Your task to perform on an android device: open the mobile data screen to see how much data has been used Image 0: 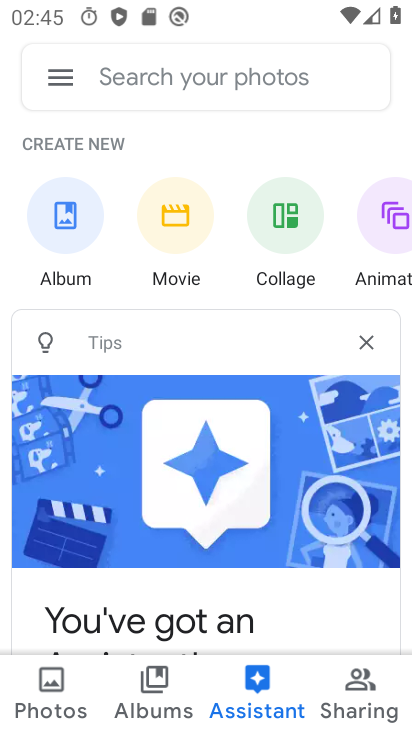
Step 0: press home button
Your task to perform on an android device: open the mobile data screen to see how much data has been used Image 1: 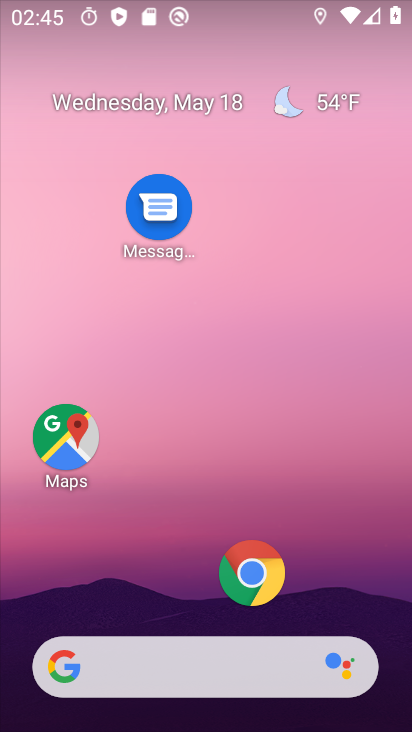
Step 1: drag from (170, 606) to (215, 242)
Your task to perform on an android device: open the mobile data screen to see how much data has been used Image 2: 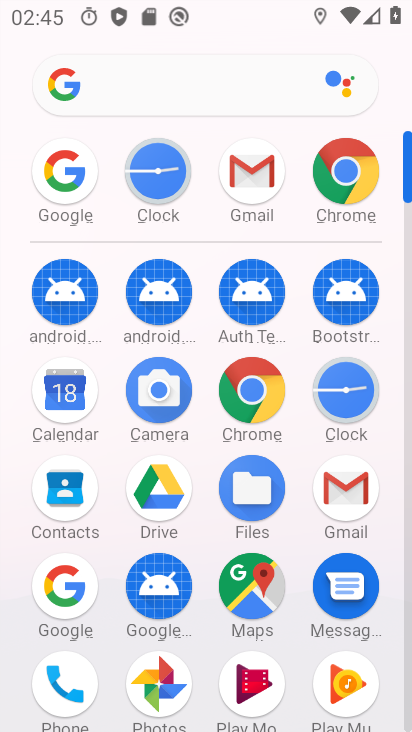
Step 2: drag from (202, 667) to (215, 421)
Your task to perform on an android device: open the mobile data screen to see how much data has been used Image 3: 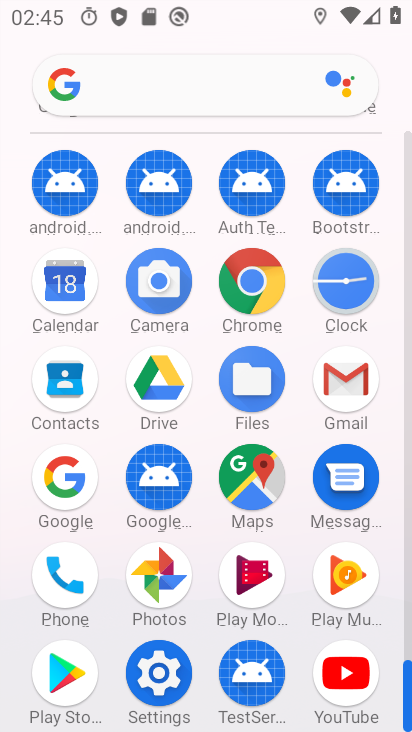
Step 3: click (169, 656)
Your task to perform on an android device: open the mobile data screen to see how much data has been used Image 4: 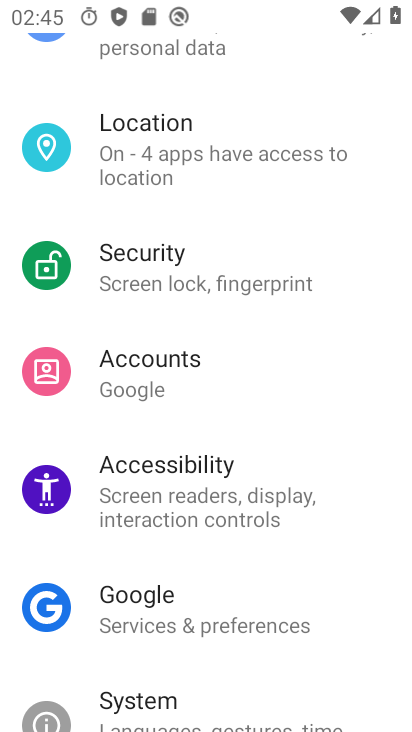
Step 4: drag from (233, 320) to (242, 537)
Your task to perform on an android device: open the mobile data screen to see how much data has been used Image 5: 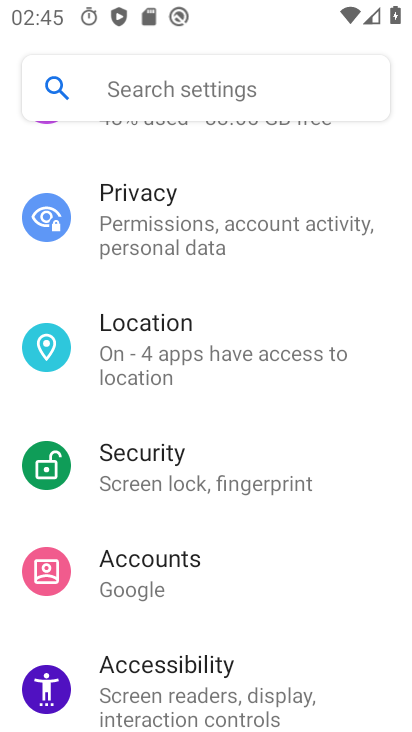
Step 5: drag from (227, 285) to (254, 523)
Your task to perform on an android device: open the mobile data screen to see how much data has been used Image 6: 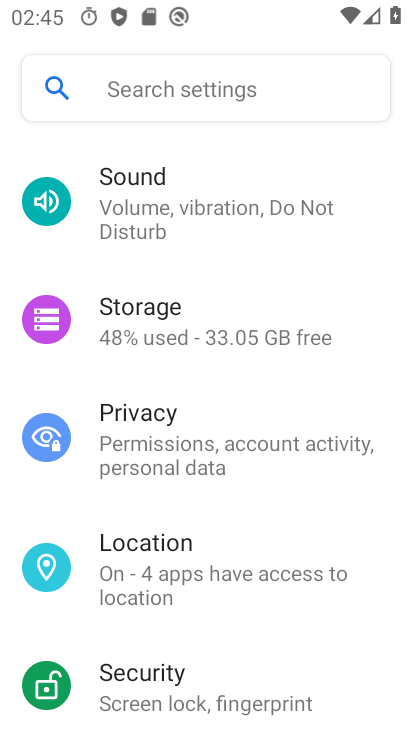
Step 6: drag from (222, 302) to (222, 528)
Your task to perform on an android device: open the mobile data screen to see how much data has been used Image 7: 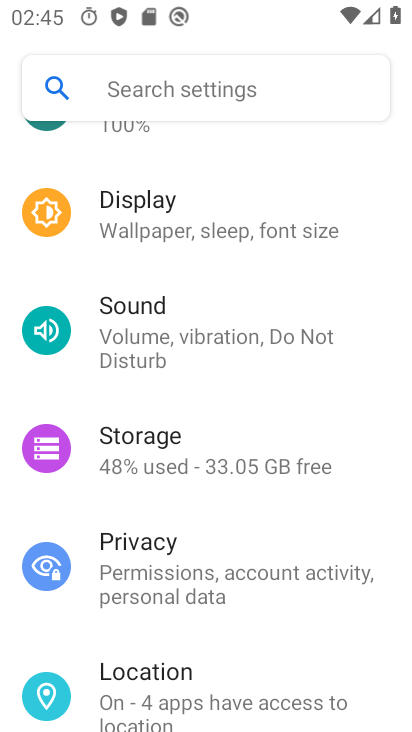
Step 7: drag from (187, 246) to (202, 550)
Your task to perform on an android device: open the mobile data screen to see how much data has been used Image 8: 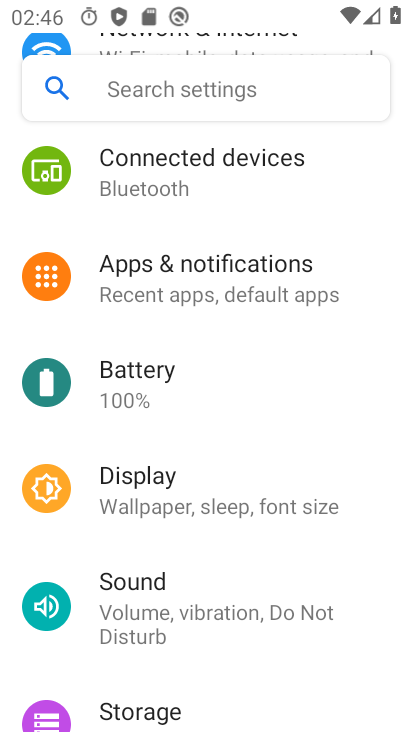
Step 8: drag from (198, 260) to (211, 570)
Your task to perform on an android device: open the mobile data screen to see how much data has been used Image 9: 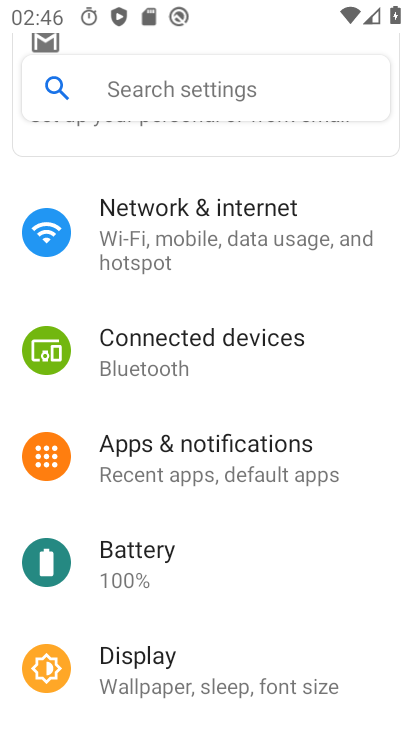
Step 9: drag from (183, 252) to (183, 548)
Your task to perform on an android device: open the mobile data screen to see how much data has been used Image 10: 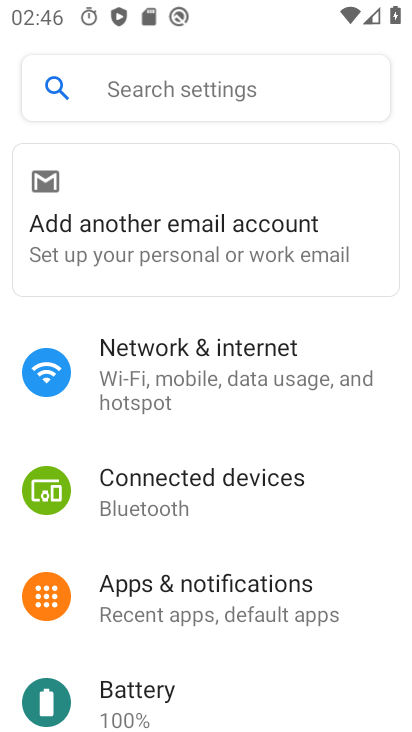
Step 10: click (169, 374)
Your task to perform on an android device: open the mobile data screen to see how much data has been used Image 11: 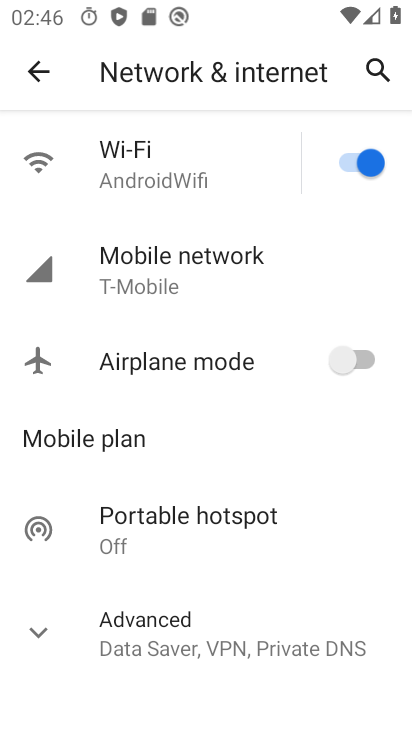
Step 11: click (211, 286)
Your task to perform on an android device: open the mobile data screen to see how much data has been used Image 12: 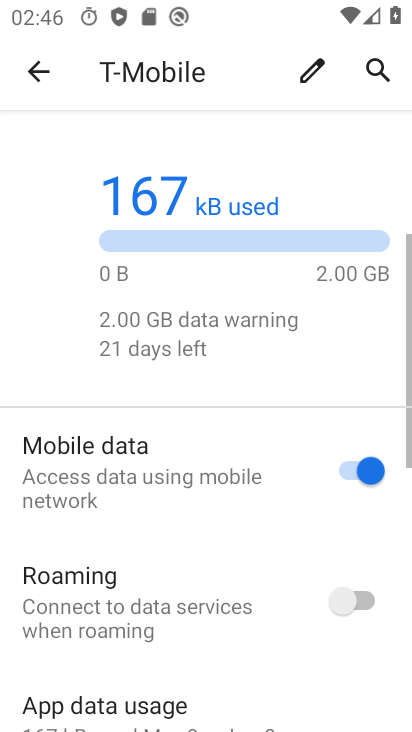
Step 12: drag from (232, 607) to (227, 325)
Your task to perform on an android device: open the mobile data screen to see how much data has been used Image 13: 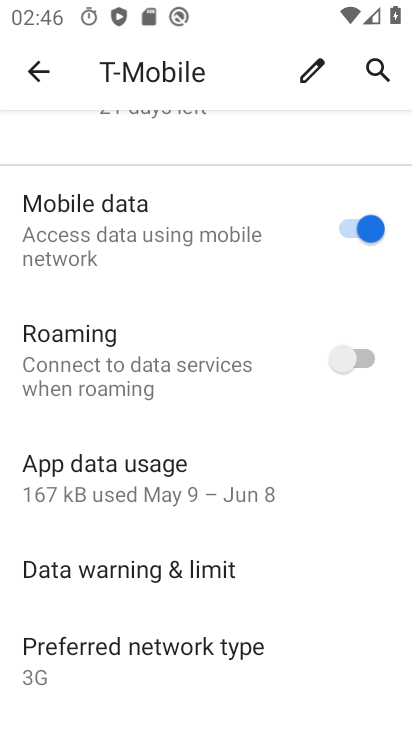
Step 13: click (145, 480)
Your task to perform on an android device: open the mobile data screen to see how much data has been used Image 14: 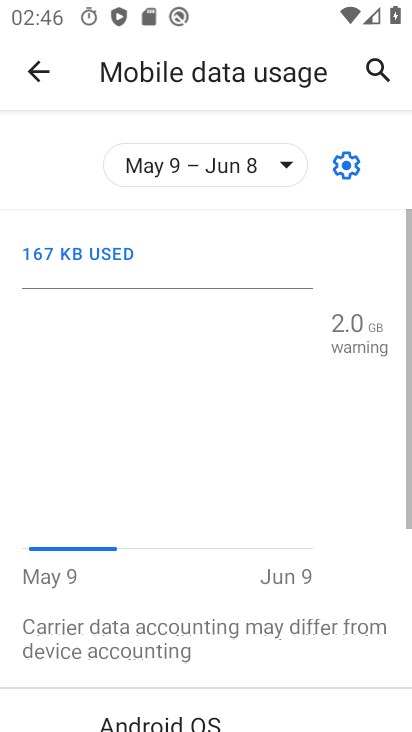
Step 14: task complete